Your task to perform on an android device: Open privacy settings Image 0: 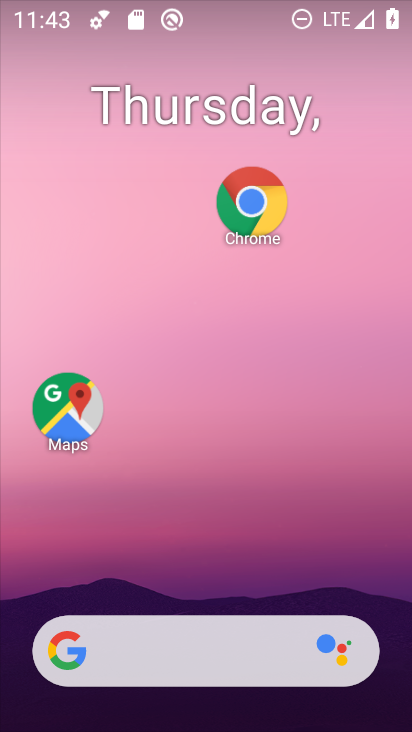
Step 0: click (19, 192)
Your task to perform on an android device: Open privacy settings Image 1: 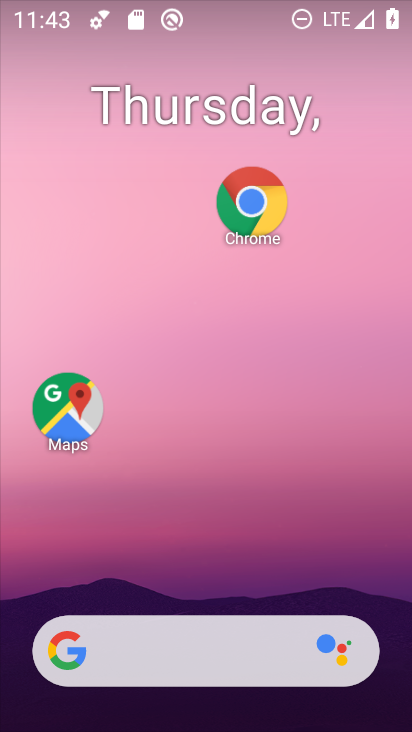
Step 1: drag from (219, 598) to (129, 4)
Your task to perform on an android device: Open privacy settings Image 2: 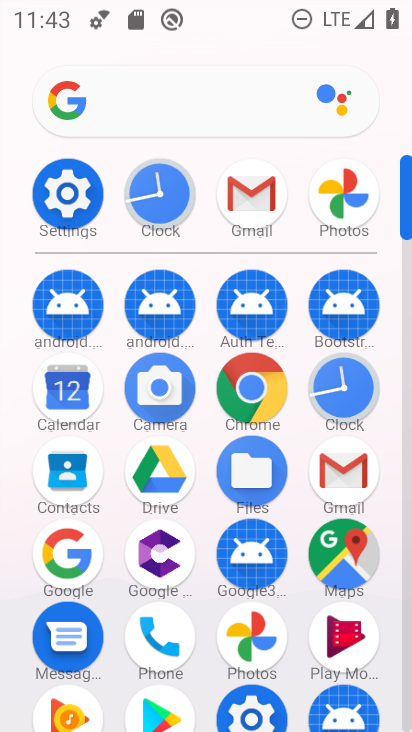
Step 2: click (77, 227)
Your task to perform on an android device: Open privacy settings Image 3: 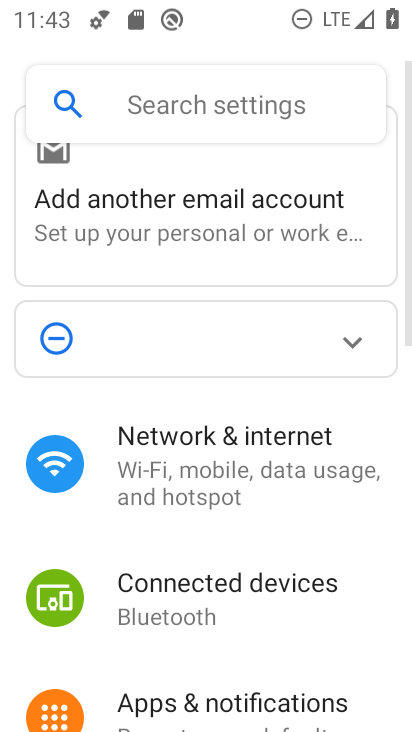
Step 3: drag from (209, 590) to (95, 11)
Your task to perform on an android device: Open privacy settings Image 4: 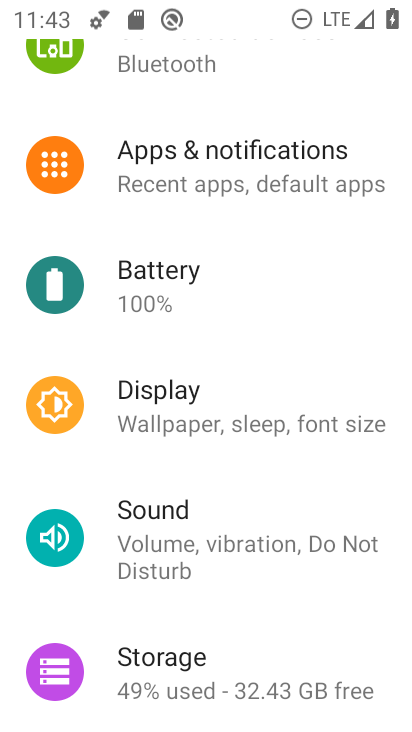
Step 4: drag from (254, 591) to (163, 3)
Your task to perform on an android device: Open privacy settings Image 5: 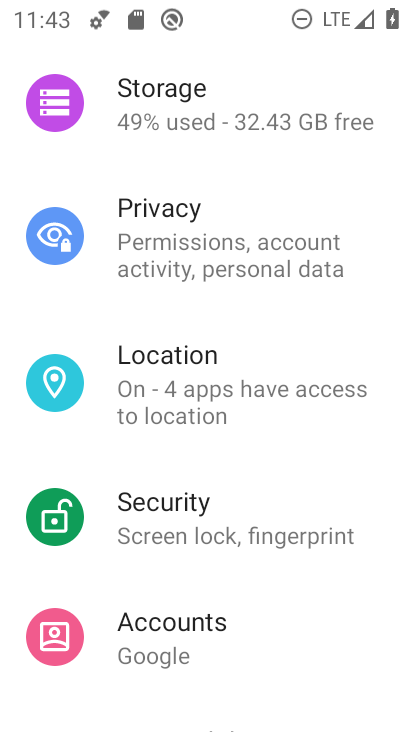
Step 5: click (160, 248)
Your task to perform on an android device: Open privacy settings Image 6: 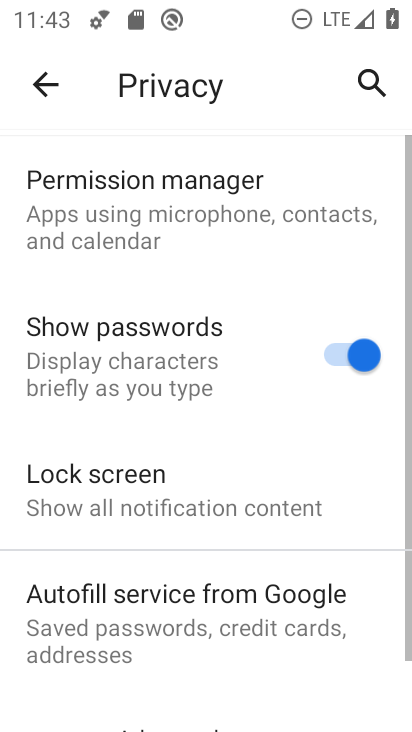
Step 6: task complete